Your task to perform on an android device: Show me popular games on the Play Store Image 0: 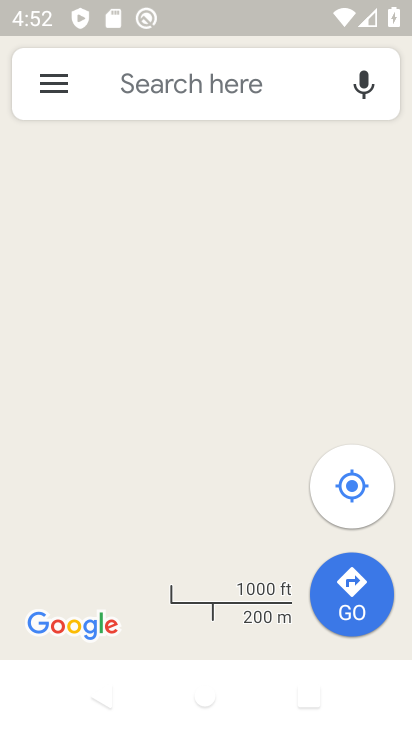
Step 0: press home button
Your task to perform on an android device: Show me popular games on the Play Store Image 1: 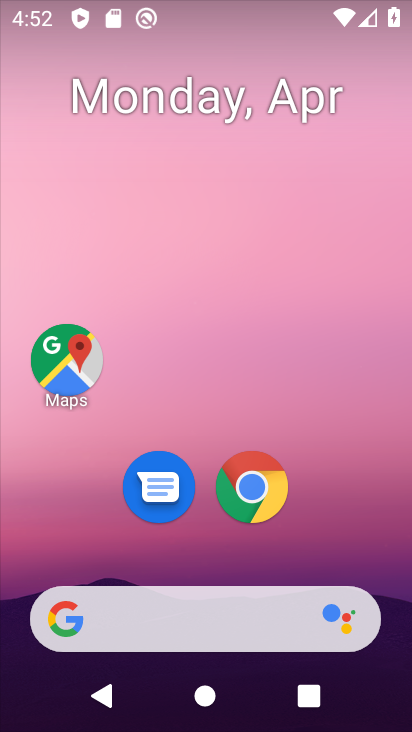
Step 1: drag from (318, 529) to (246, 114)
Your task to perform on an android device: Show me popular games on the Play Store Image 2: 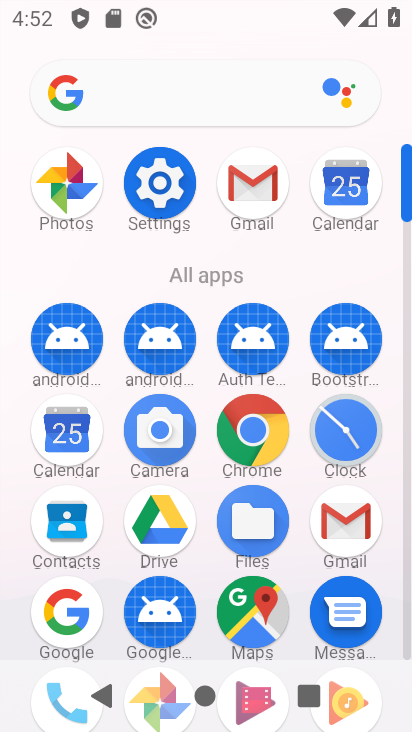
Step 2: click (409, 649)
Your task to perform on an android device: Show me popular games on the Play Store Image 3: 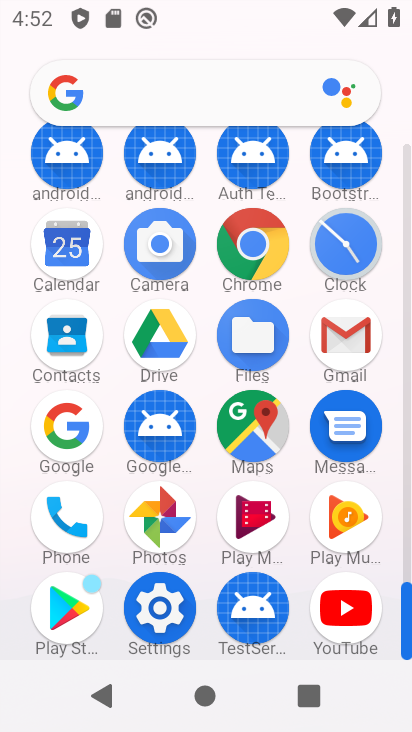
Step 3: click (95, 593)
Your task to perform on an android device: Show me popular games on the Play Store Image 4: 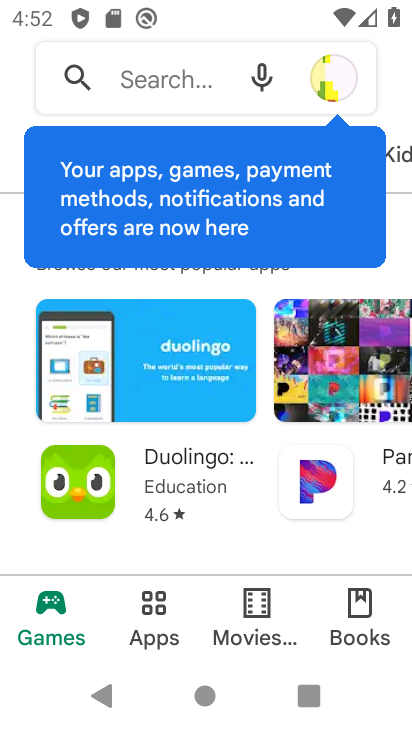
Step 4: click (199, 204)
Your task to perform on an android device: Show me popular games on the Play Store Image 5: 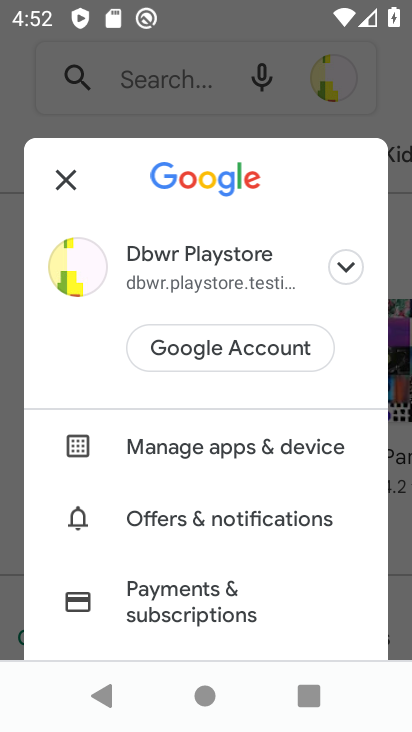
Step 5: click (62, 187)
Your task to perform on an android device: Show me popular games on the Play Store Image 6: 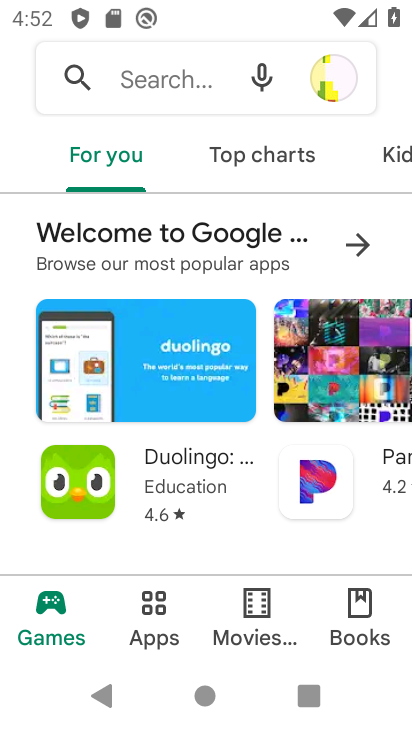
Step 6: task complete